Your task to perform on an android device: Open CNN.com Image 0: 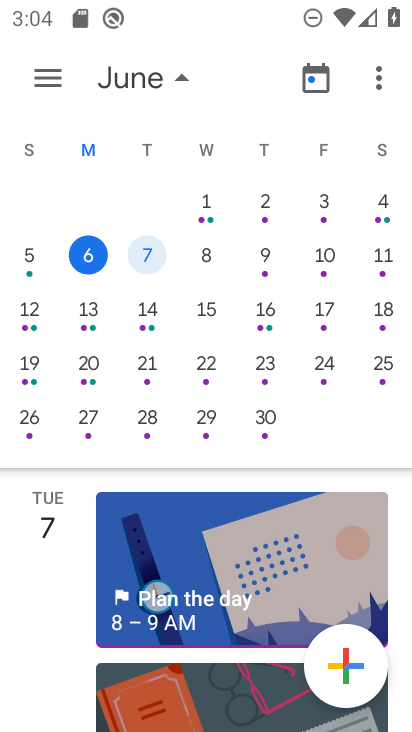
Step 0: press home button
Your task to perform on an android device: Open CNN.com Image 1: 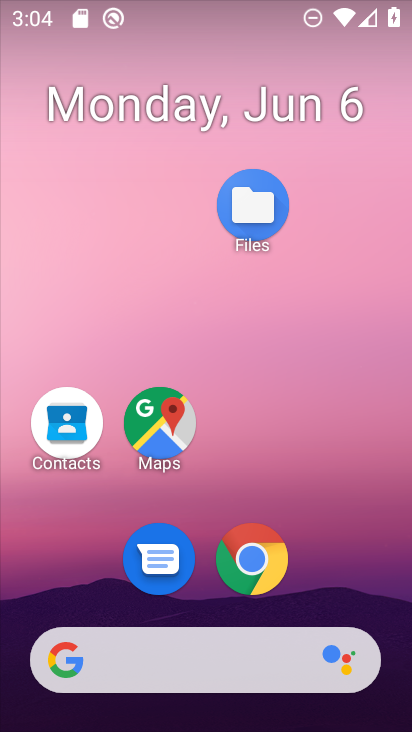
Step 1: click (263, 575)
Your task to perform on an android device: Open CNN.com Image 2: 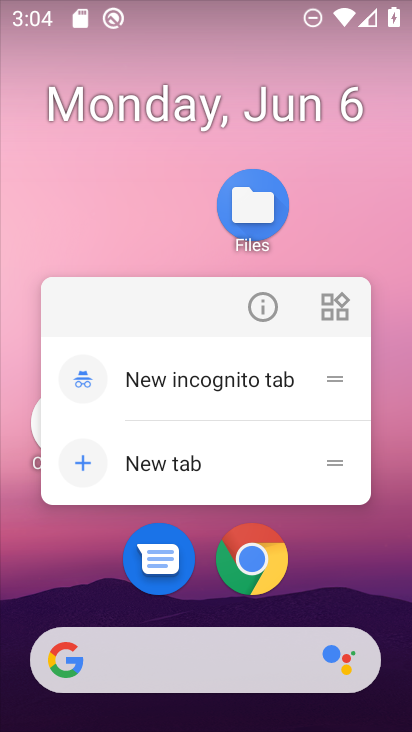
Step 2: click (245, 592)
Your task to perform on an android device: Open CNN.com Image 3: 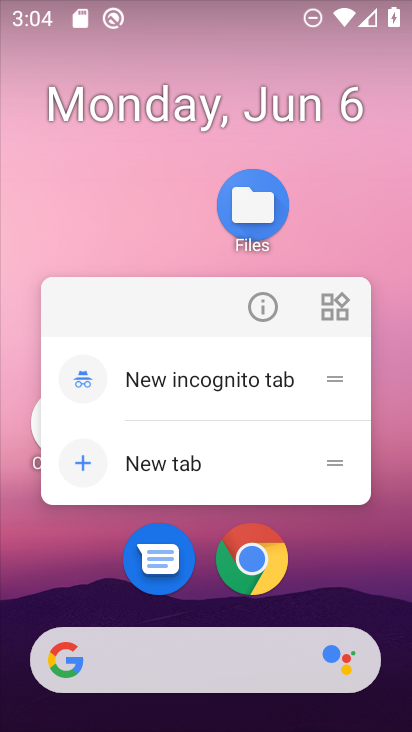
Step 3: click (252, 583)
Your task to perform on an android device: Open CNN.com Image 4: 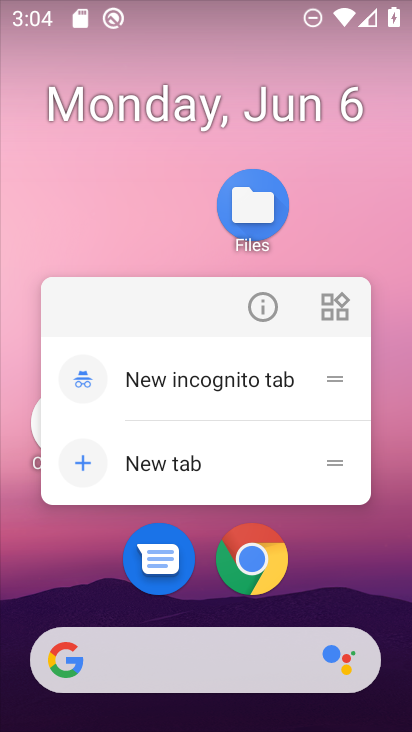
Step 4: click (254, 565)
Your task to perform on an android device: Open CNN.com Image 5: 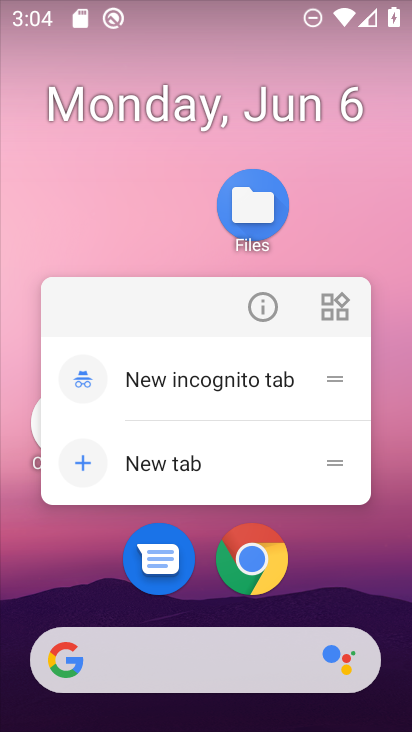
Step 5: click (269, 544)
Your task to perform on an android device: Open CNN.com Image 6: 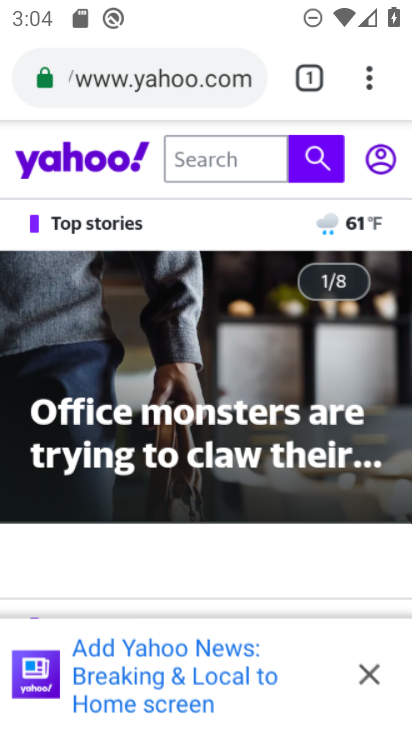
Step 6: click (170, 75)
Your task to perform on an android device: Open CNN.com Image 7: 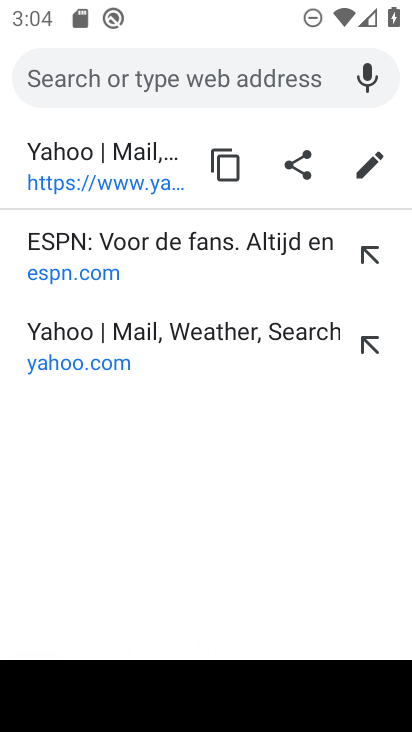
Step 7: type "cnn"
Your task to perform on an android device: Open CNN.com Image 8: 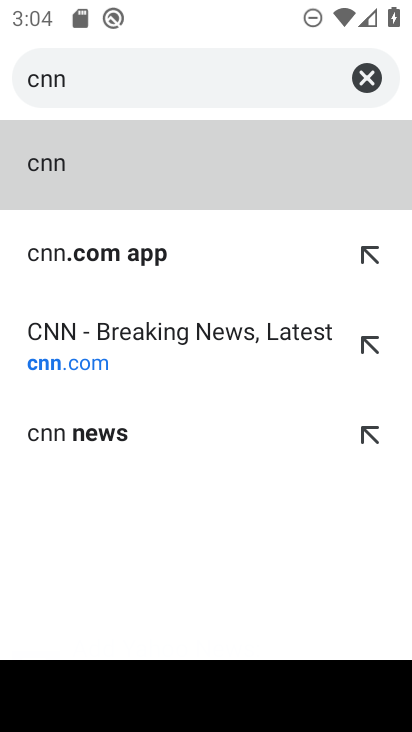
Step 8: click (170, 345)
Your task to perform on an android device: Open CNN.com Image 9: 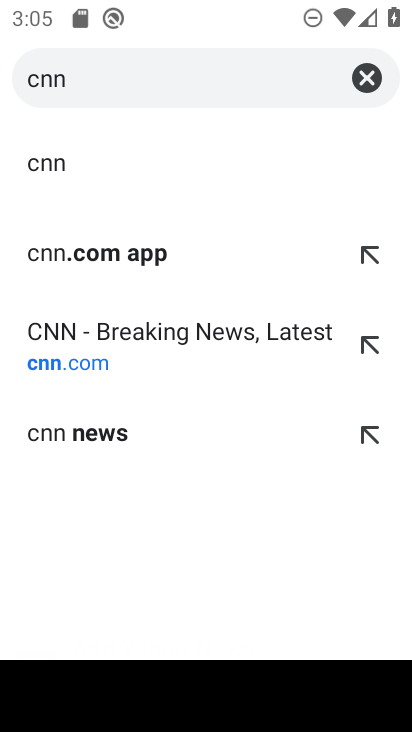
Step 9: click (150, 348)
Your task to perform on an android device: Open CNN.com Image 10: 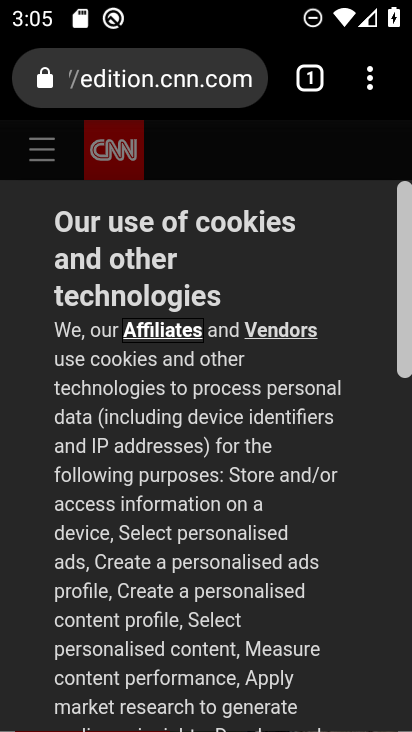
Step 10: task complete